Your task to perform on an android device: toggle wifi Image 0: 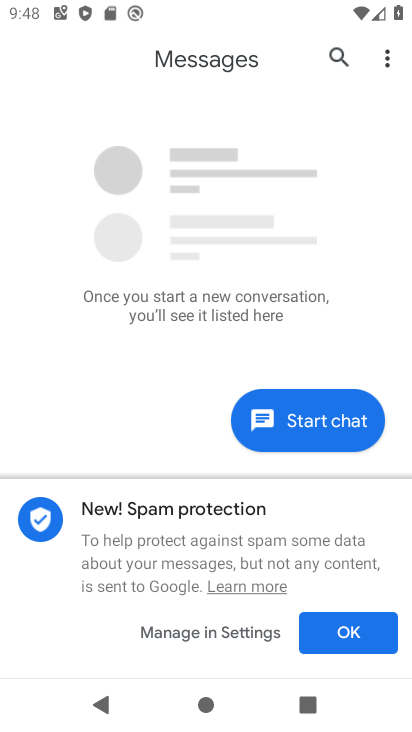
Step 0: press home button
Your task to perform on an android device: toggle wifi Image 1: 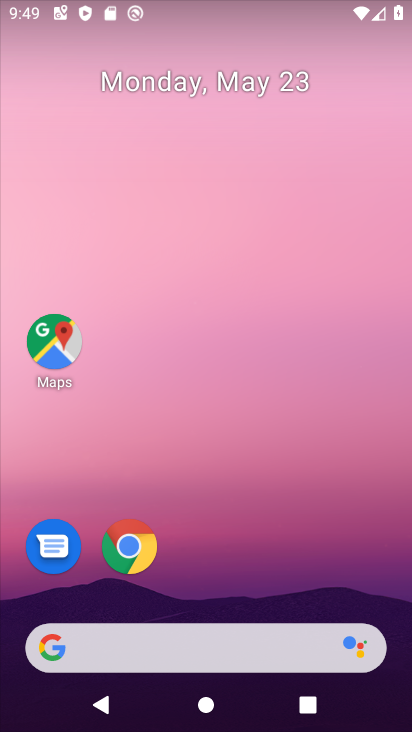
Step 1: drag from (386, 592) to (289, 116)
Your task to perform on an android device: toggle wifi Image 2: 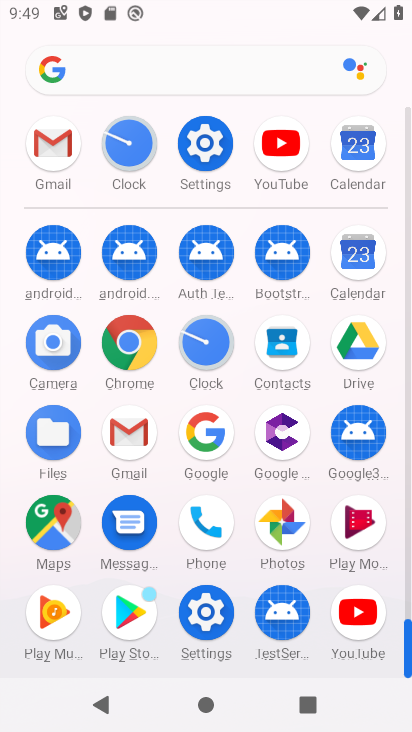
Step 2: click (202, 613)
Your task to perform on an android device: toggle wifi Image 3: 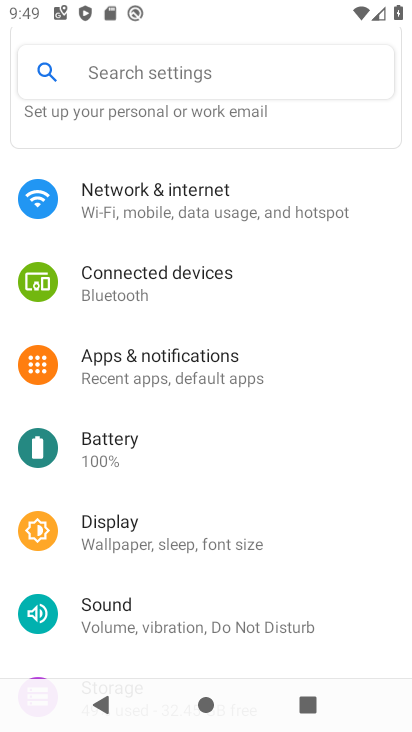
Step 3: click (150, 190)
Your task to perform on an android device: toggle wifi Image 4: 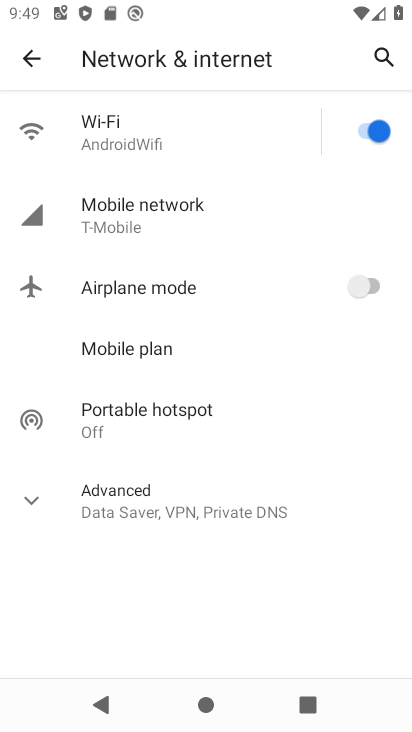
Step 4: click (373, 127)
Your task to perform on an android device: toggle wifi Image 5: 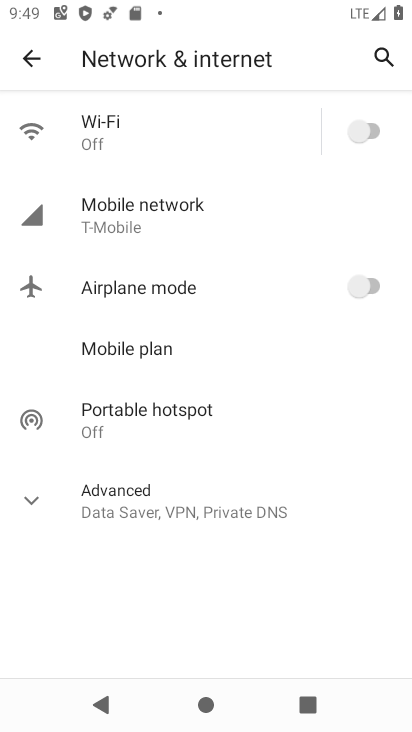
Step 5: task complete